Your task to perform on an android device: Is it going to rain this weekend? Image 0: 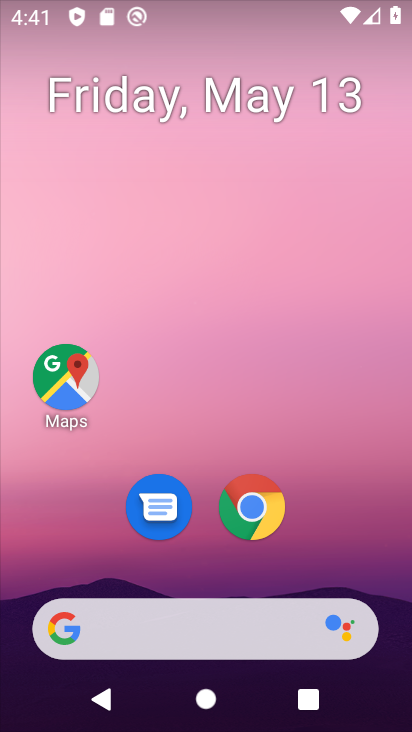
Step 0: drag from (330, 505) to (232, 46)
Your task to perform on an android device: Is it going to rain this weekend? Image 1: 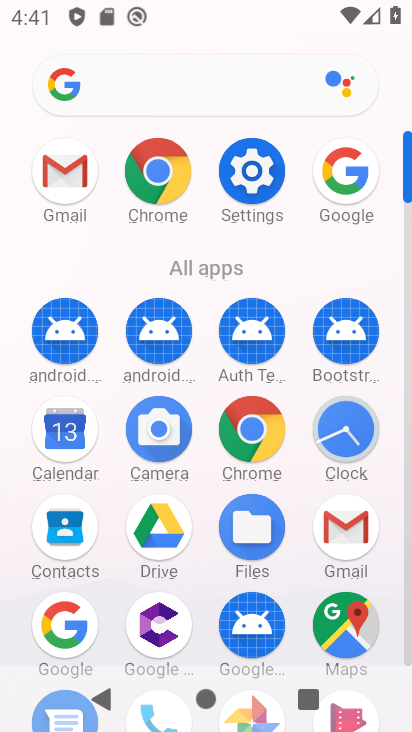
Step 1: click (61, 621)
Your task to perform on an android device: Is it going to rain this weekend? Image 2: 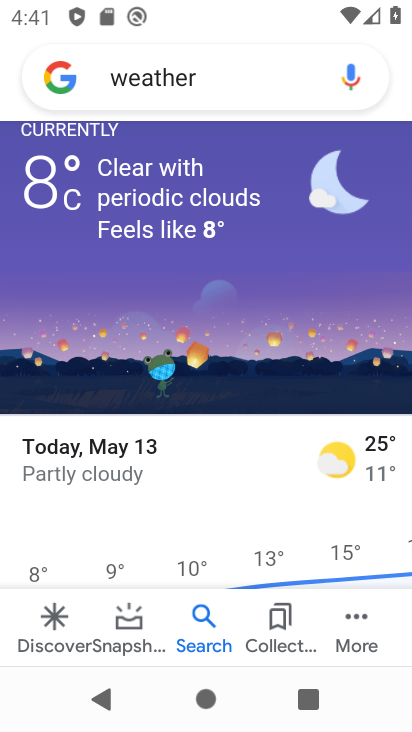
Step 2: drag from (243, 209) to (198, 589)
Your task to perform on an android device: Is it going to rain this weekend? Image 3: 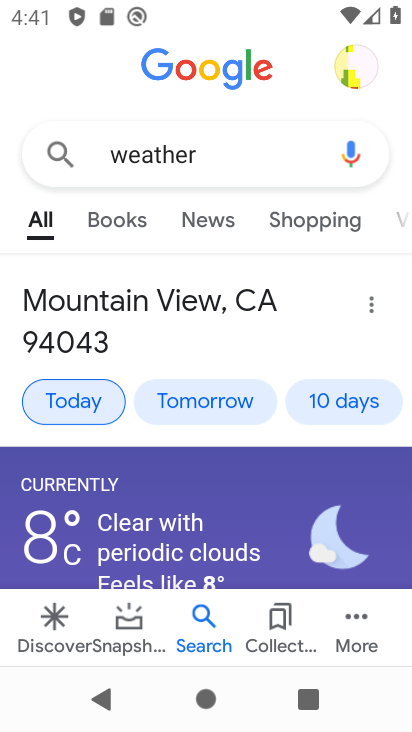
Step 3: click (227, 401)
Your task to perform on an android device: Is it going to rain this weekend? Image 4: 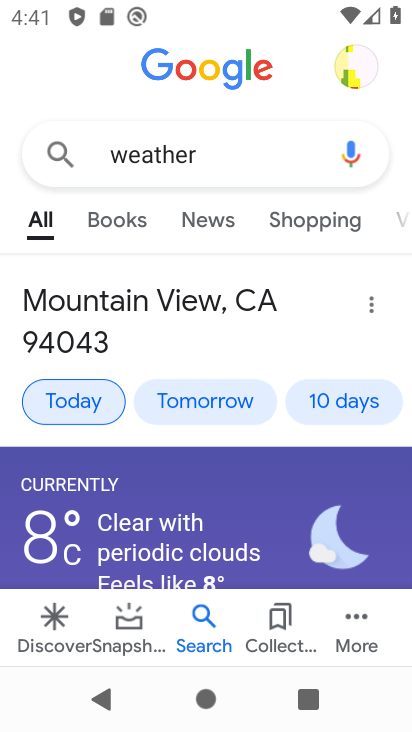
Step 4: click (325, 404)
Your task to perform on an android device: Is it going to rain this weekend? Image 5: 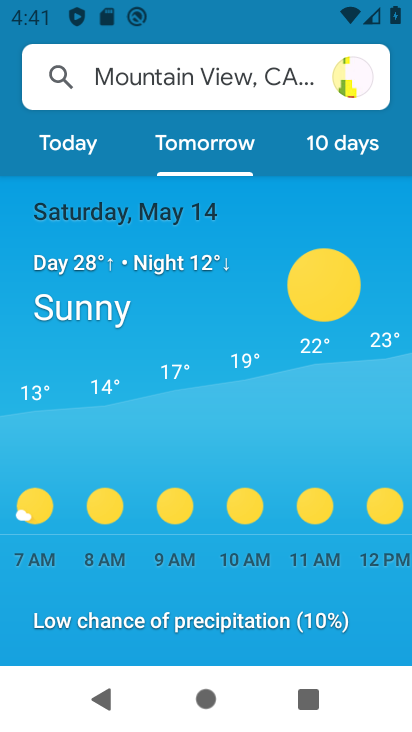
Step 5: click (327, 138)
Your task to perform on an android device: Is it going to rain this weekend? Image 6: 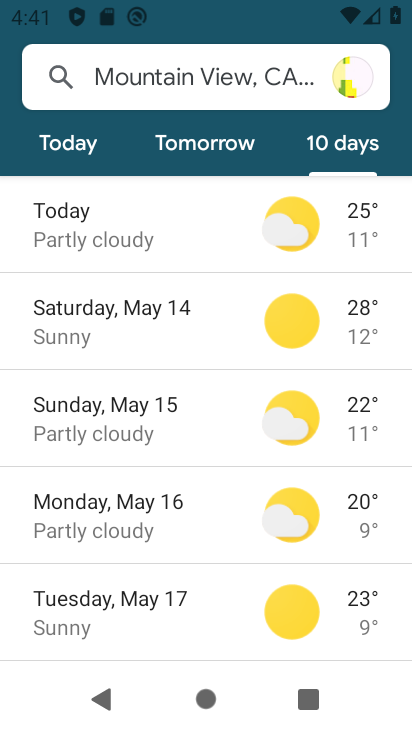
Step 6: task complete